Your task to perform on an android device: What's the weather? Image 0: 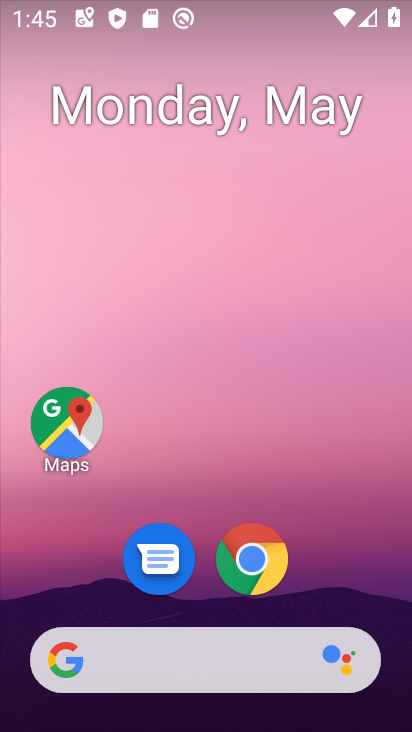
Step 0: click (268, 562)
Your task to perform on an android device: What's the weather? Image 1: 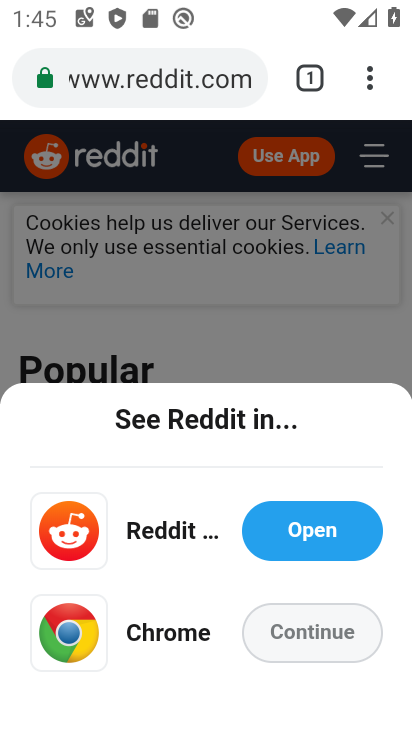
Step 1: click (184, 94)
Your task to perform on an android device: What's the weather? Image 2: 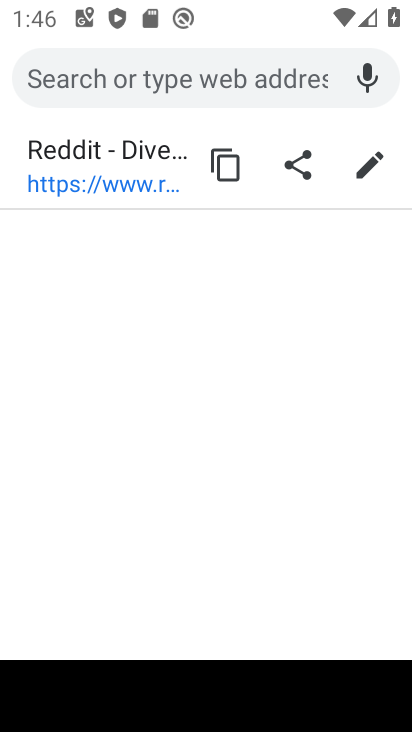
Step 2: type "What's the weather?"
Your task to perform on an android device: What's the weather? Image 3: 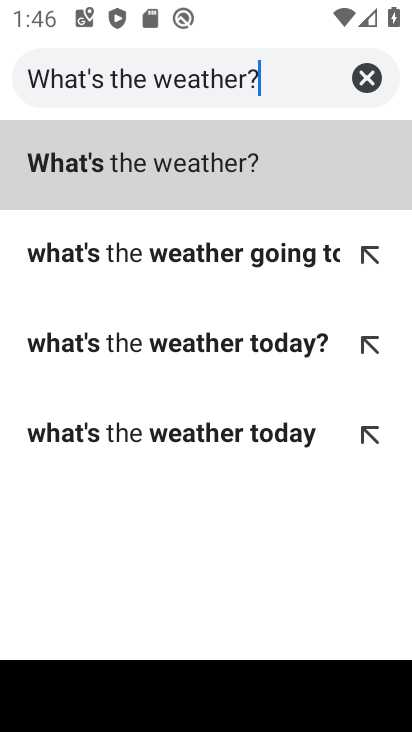
Step 3: click (47, 150)
Your task to perform on an android device: What's the weather? Image 4: 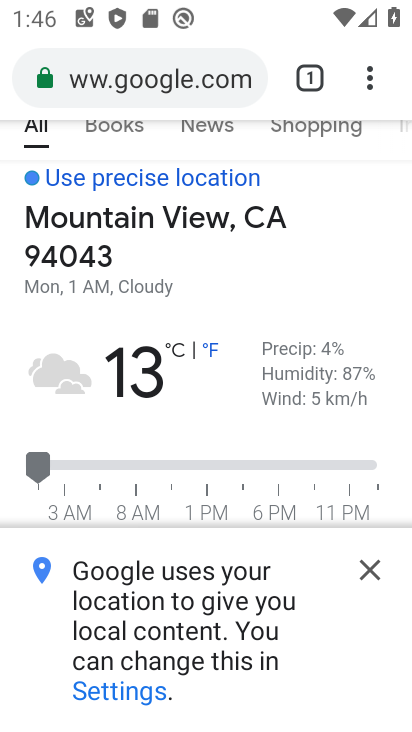
Step 4: task complete